Your task to perform on an android device: toggle sleep mode Image 0: 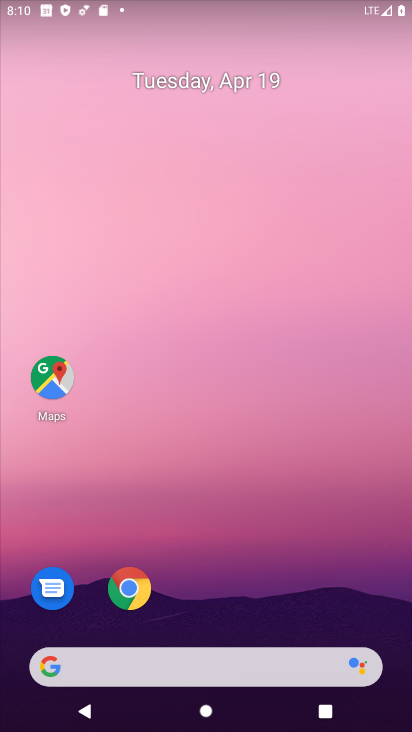
Step 0: drag from (207, 718) to (199, 14)
Your task to perform on an android device: toggle sleep mode Image 1: 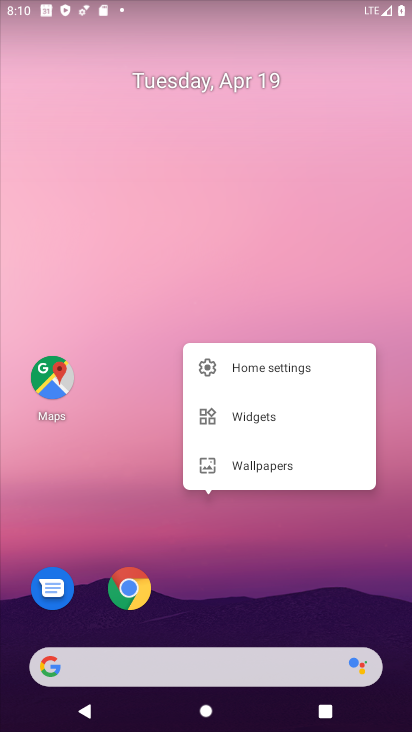
Step 1: click (211, 260)
Your task to perform on an android device: toggle sleep mode Image 2: 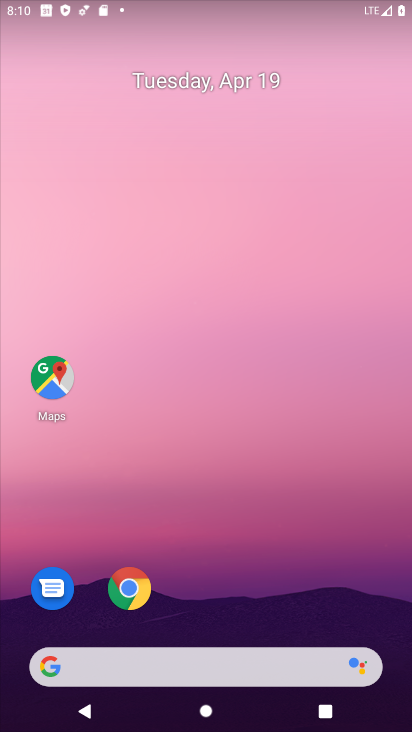
Step 2: drag from (204, 729) to (209, 65)
Your task to perform on an android device: toggle sleep mode Image 3: 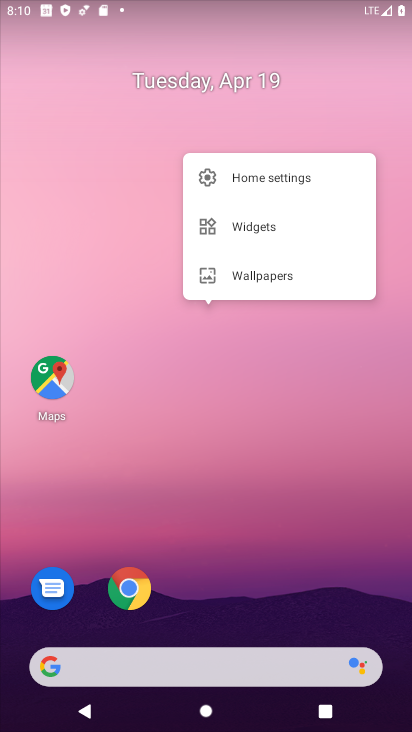
Step 3: click (247, 434)
Your task to perform on an android device: toggle sleep mode Image 4: 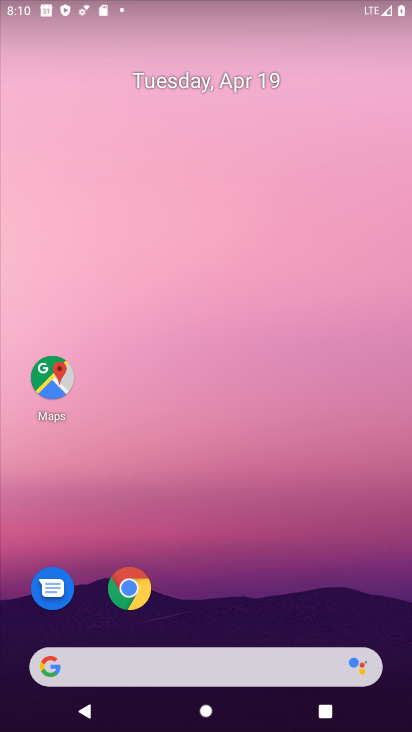
Step 4: drag from (205, 567) to (205, 85)
Your task to perform on an android device: toggle sleep mode Image 5: 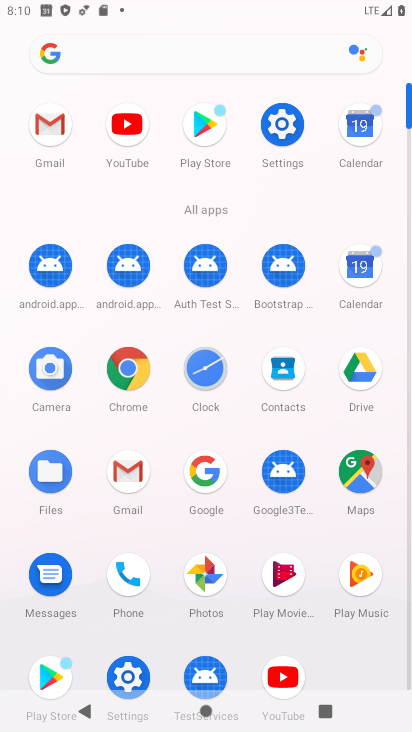
Step 5: click (280, 125)
Your task to perform on an android device: toggle sleep mode Image 6: 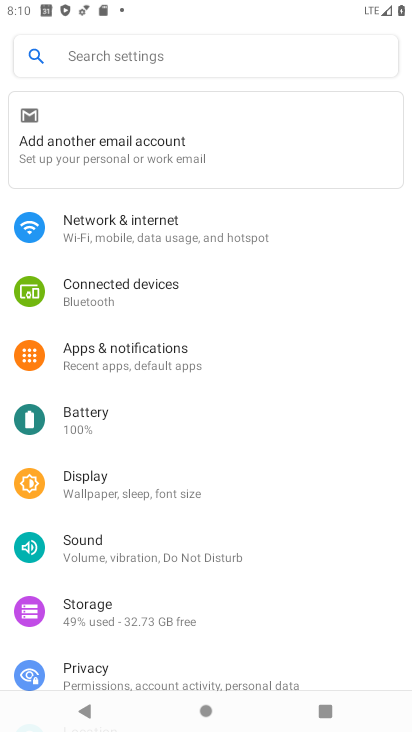
Step 6: drag from (181, 661) to (188, 197)
Your task to perform on an android device: toggle sleep mode Image 7: 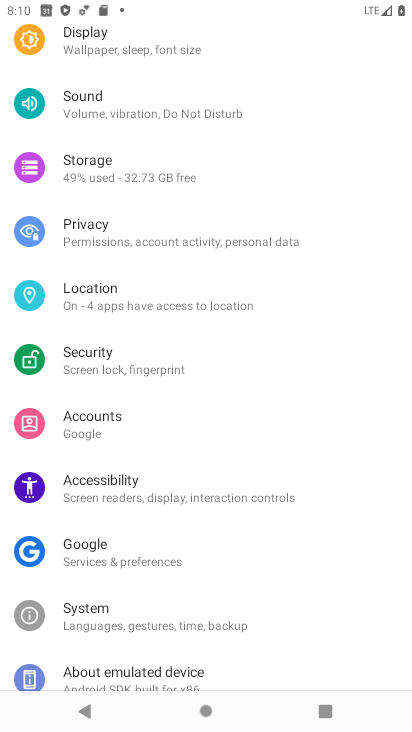
Step 7: drag from (119, 648) to (134, 151)
Your task to perform on an android device: toggle sleep mode Image 8: 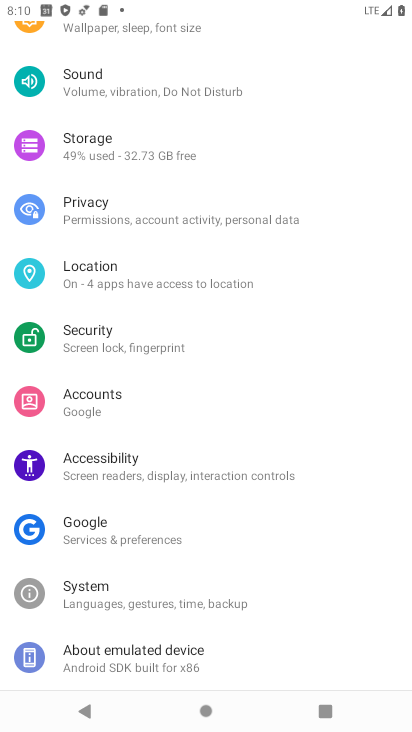
Step 8: drag from (231, 127) to (230, 533)
Your task to perform on an android device: toggle sleep mode Image 9: 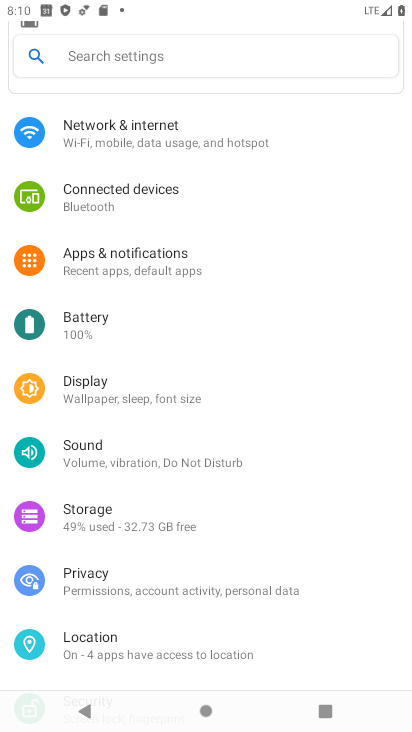
Step 9: click (161, 400)
Your task to perform on an android device: toggle sleep mode Image 10: 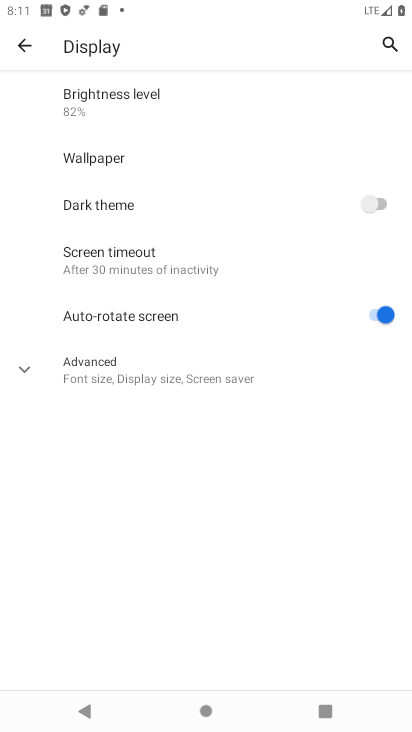
Step 10: task complete